Your task to perform on an android device: change the upload size in google photos Image 0: 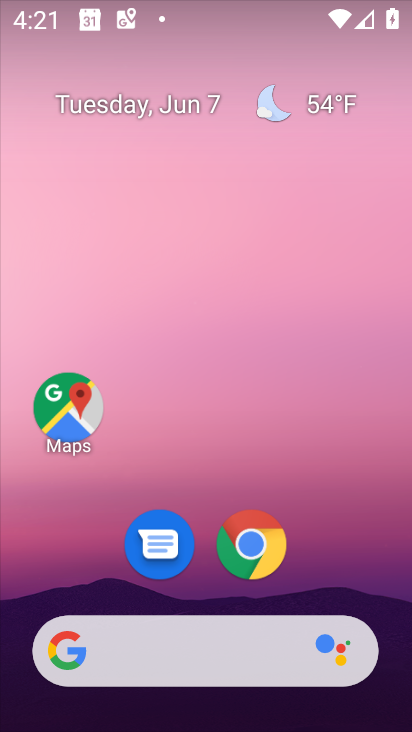
Step 0: drag from (345, 540) to (322, 4)
Your task to perform on an android device: change the upload size in google photos Image 1: 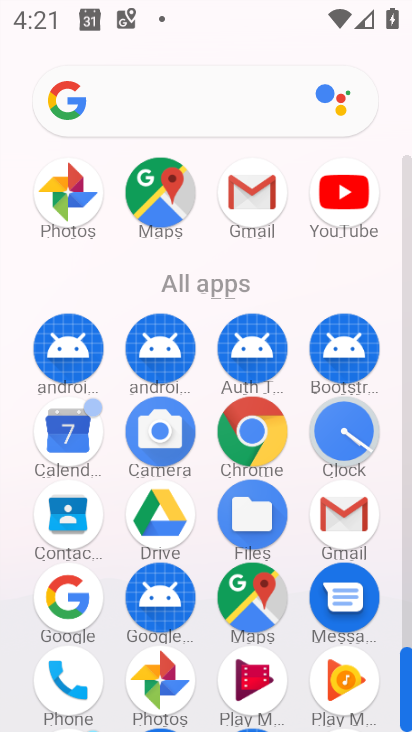
Step 1: task complete